Your task to perform on an android device: Open Amazon Image 0: 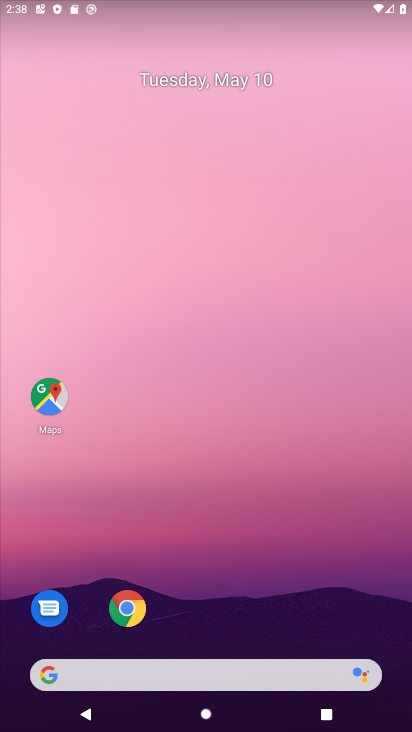
Step 0: click (147, 620)
Your task to perform on an android device: Open Amazon Image 1: 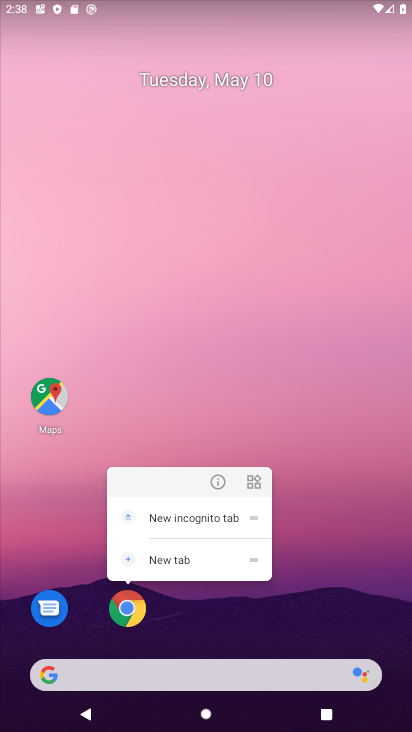
Step 1: click (131, 609)
Your task to perform on an android device: Open Amazon Image 2: 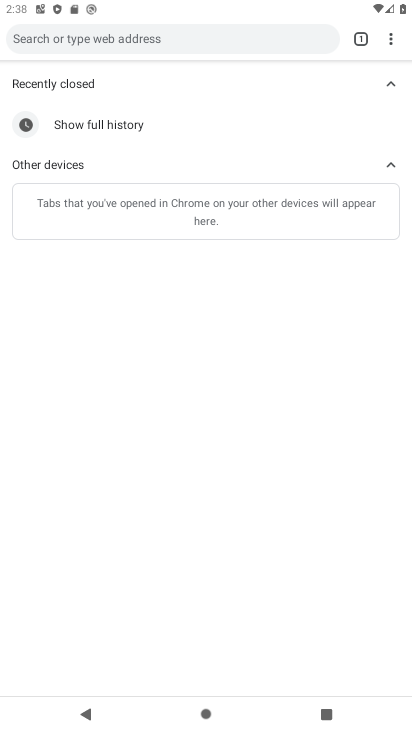
Step 2: click (390, 44)
Your task to perform on an android device: Open Amazon Image 3: 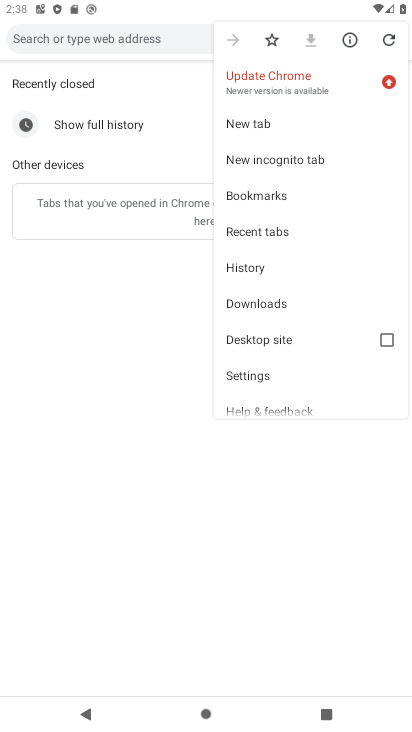
Step 3: click (251, 120)
Your task to perform on an android device: Open Amazon Image 4: 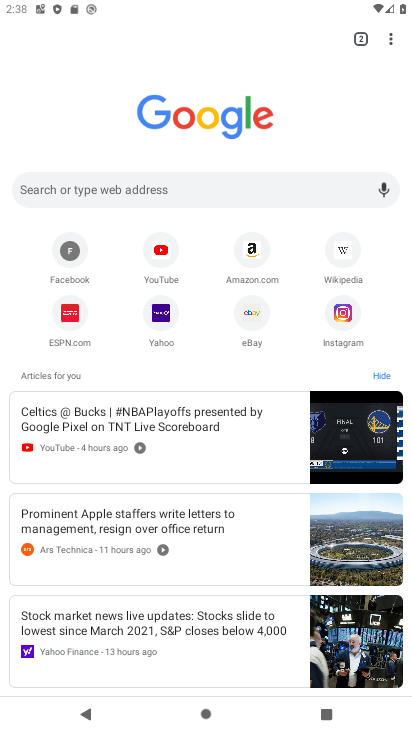
Step 4: click (253, 242)
Your task to perform on an android device: Open Amazon Image 5: 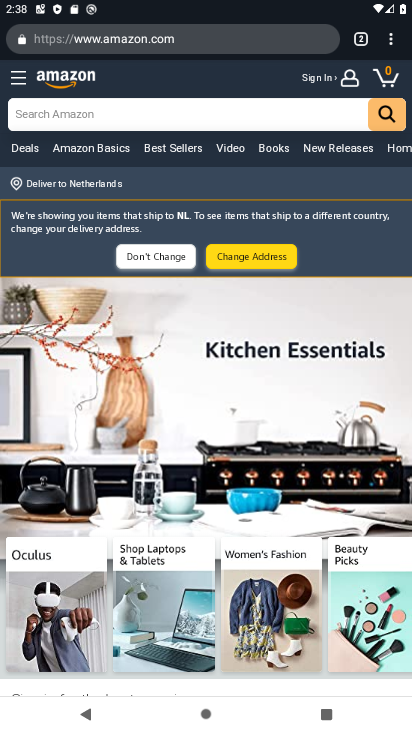
Step 5: task complete